Your task to perform on an android device: turn on the 12-hour format for clock Image 0: 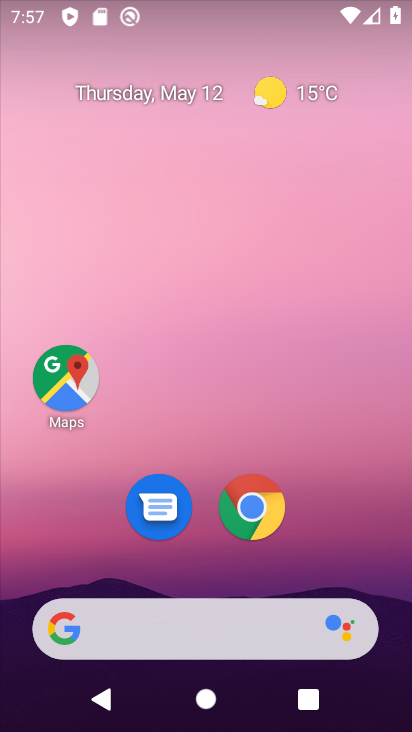
Step 0: drag from (194, 548) to (231, 2)
Your task to perform on an android device: turn on the 12-hour format for clock Image 1: 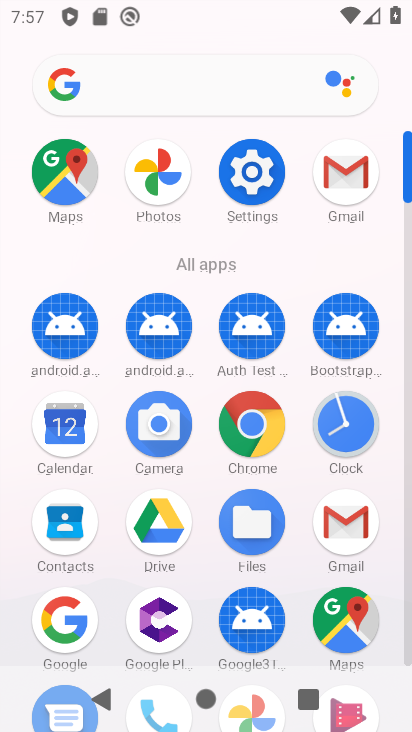
Step 1: click (347, 433)
Your task to perform on an android device: turn on the 12-hour format for clock Image 2: 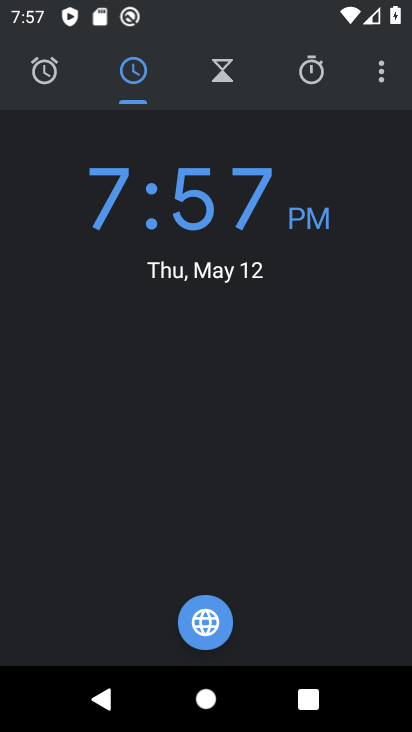
Step 2: click (360, 81)
Your task to perform on an android device: turn on the 12-hour format for clock Image 3: 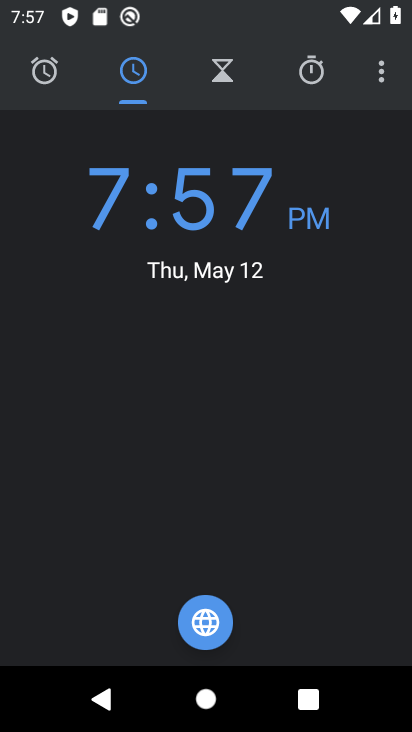
Step 3: click (381, 71)
Your task to perform on an android device: turn on the 12-hour format for clock Image 4: 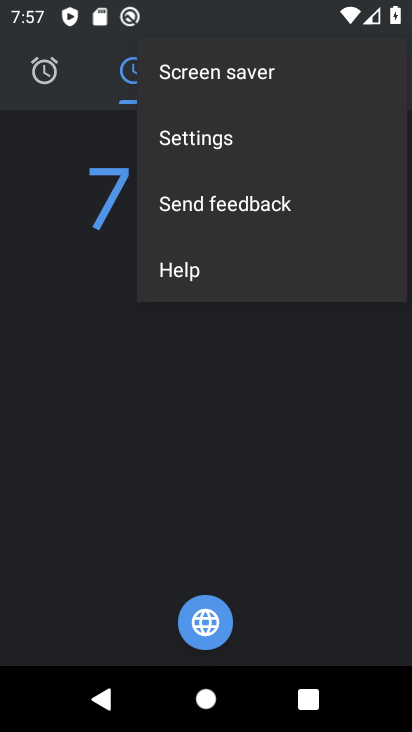
Step 4: click (327, 142)
Your task to perform on an android device: turn on the 12-hour format for clock Image 5: 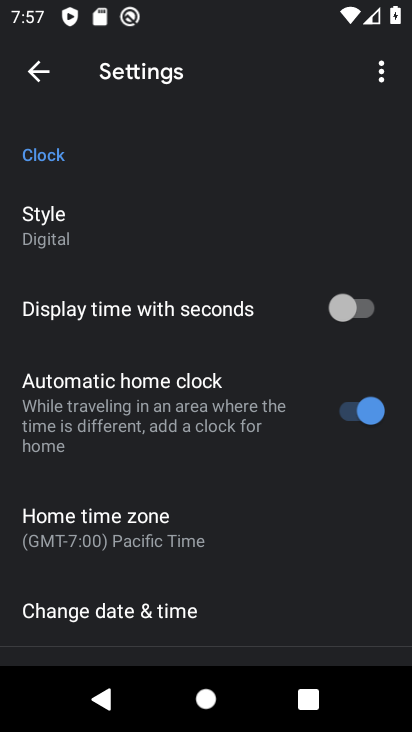
Step 5: click (74, 607)
Your task to perform on an android device: turn on the 12-hour format for clock Image 6: 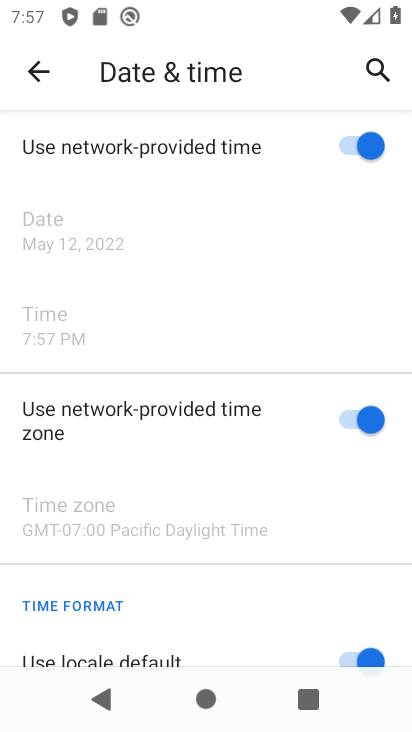
Step 6: task complete